Your task to perform on an android device: clear history in the chrome app Image 0: 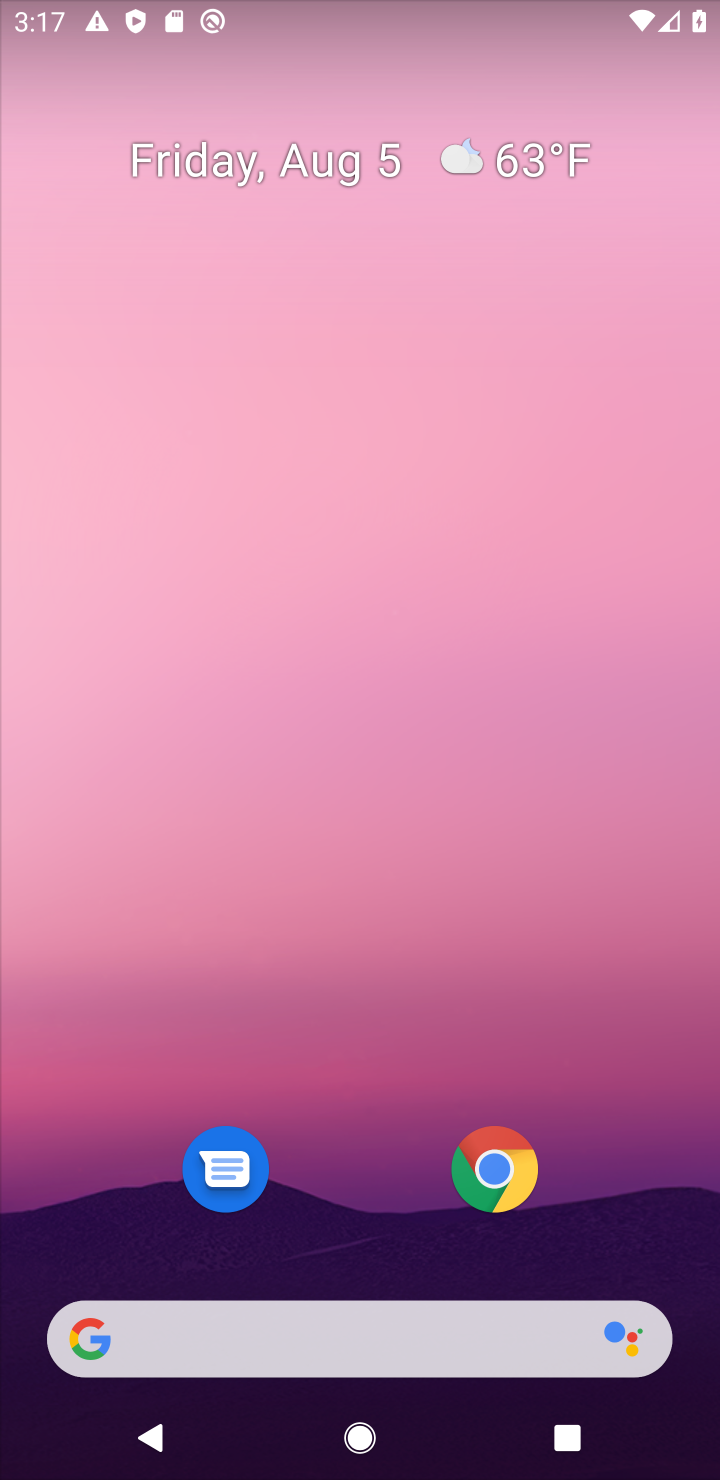
Step 0: click (485, 1166)
Your task to perform on an android device: clear history in the chrome app Image 1: 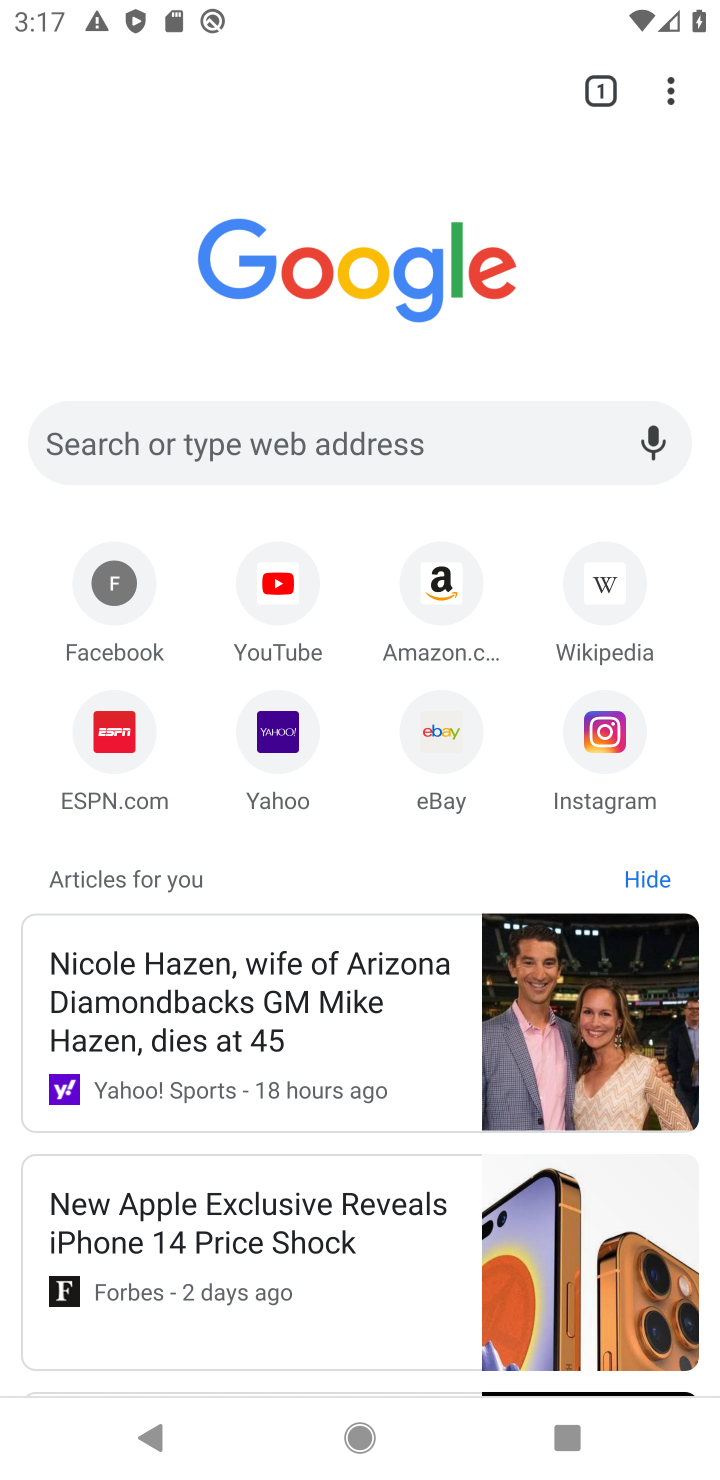
Step 1: click (670, 75)
Your task to perform on an android device: clear history in the chrome app Image 2: 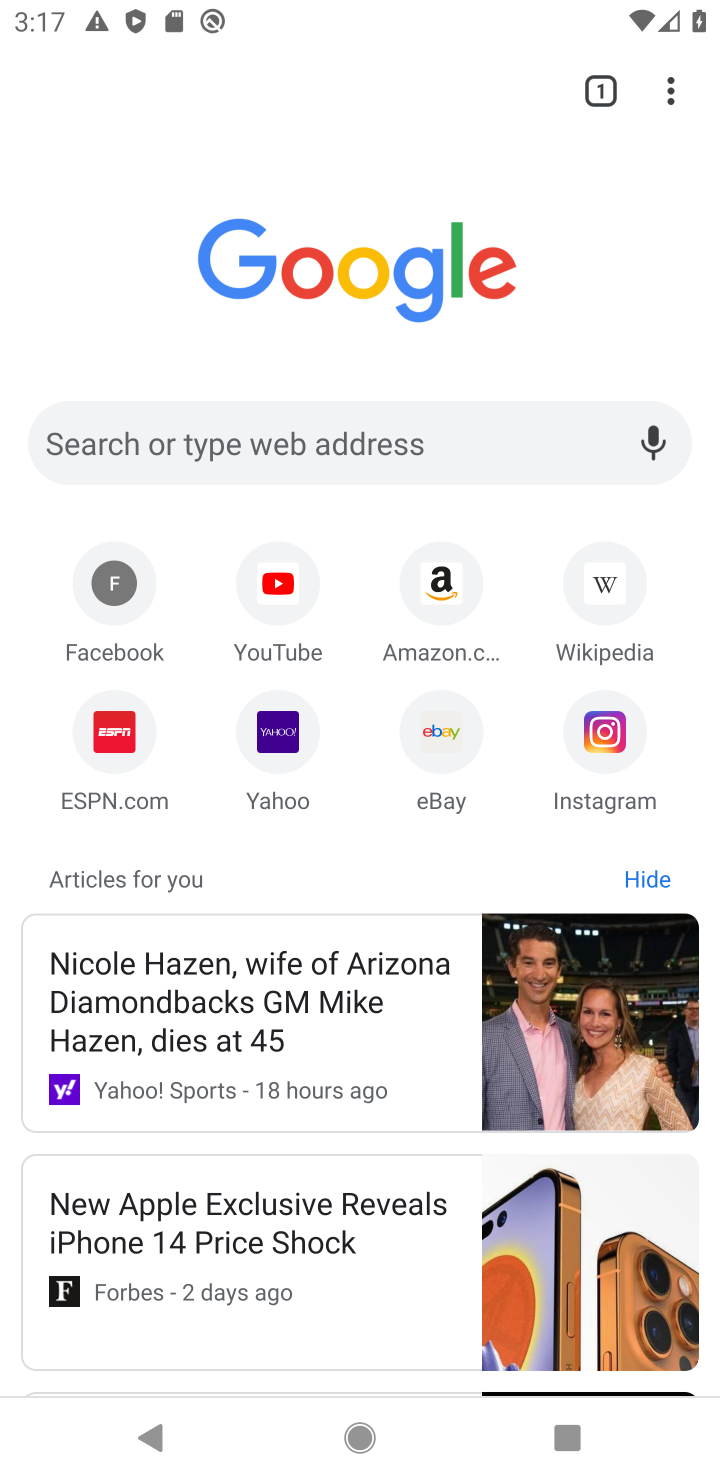
Step 2: click (664, 98)
Your task to perform on an android device: clear history in the chrome app Image 3: 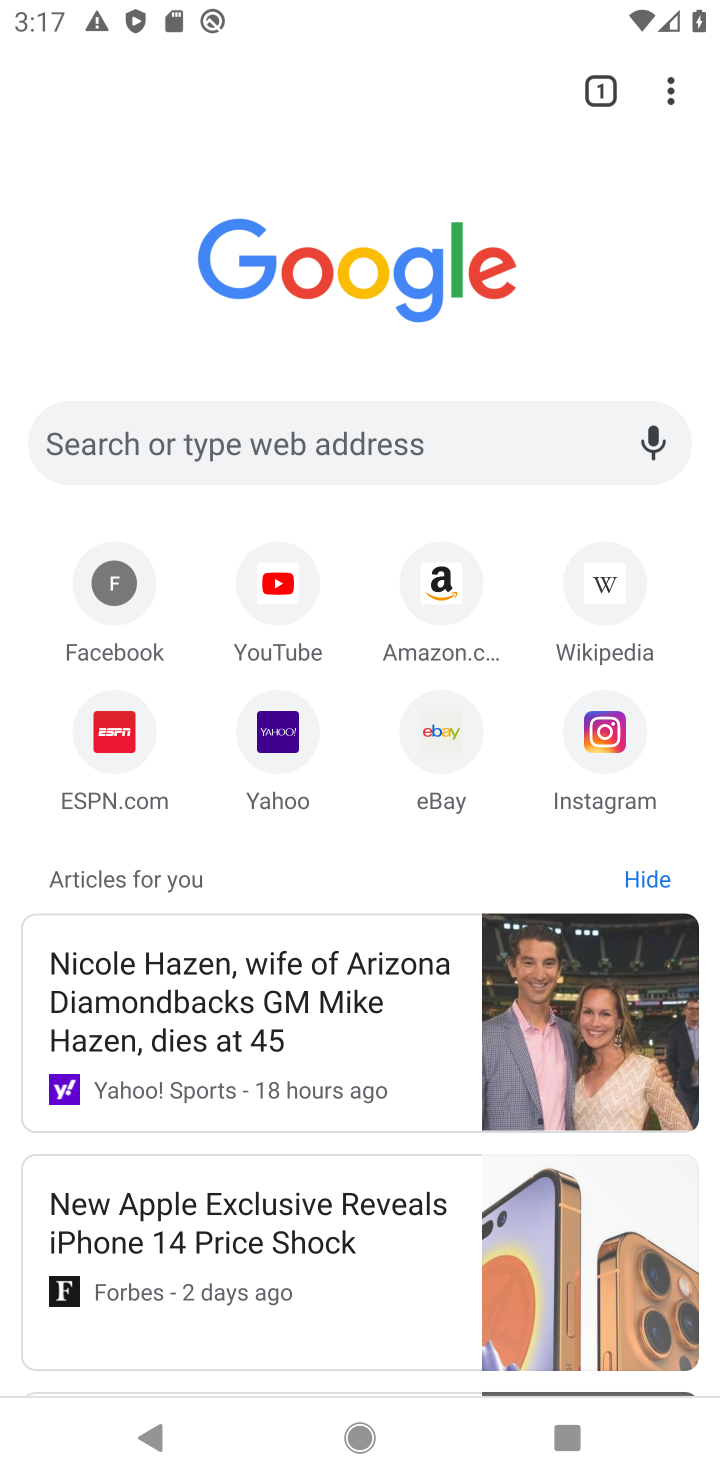
Step 3: click (664, 98)
Your task to perform on an android device: clear history in the chrome app Image 4: 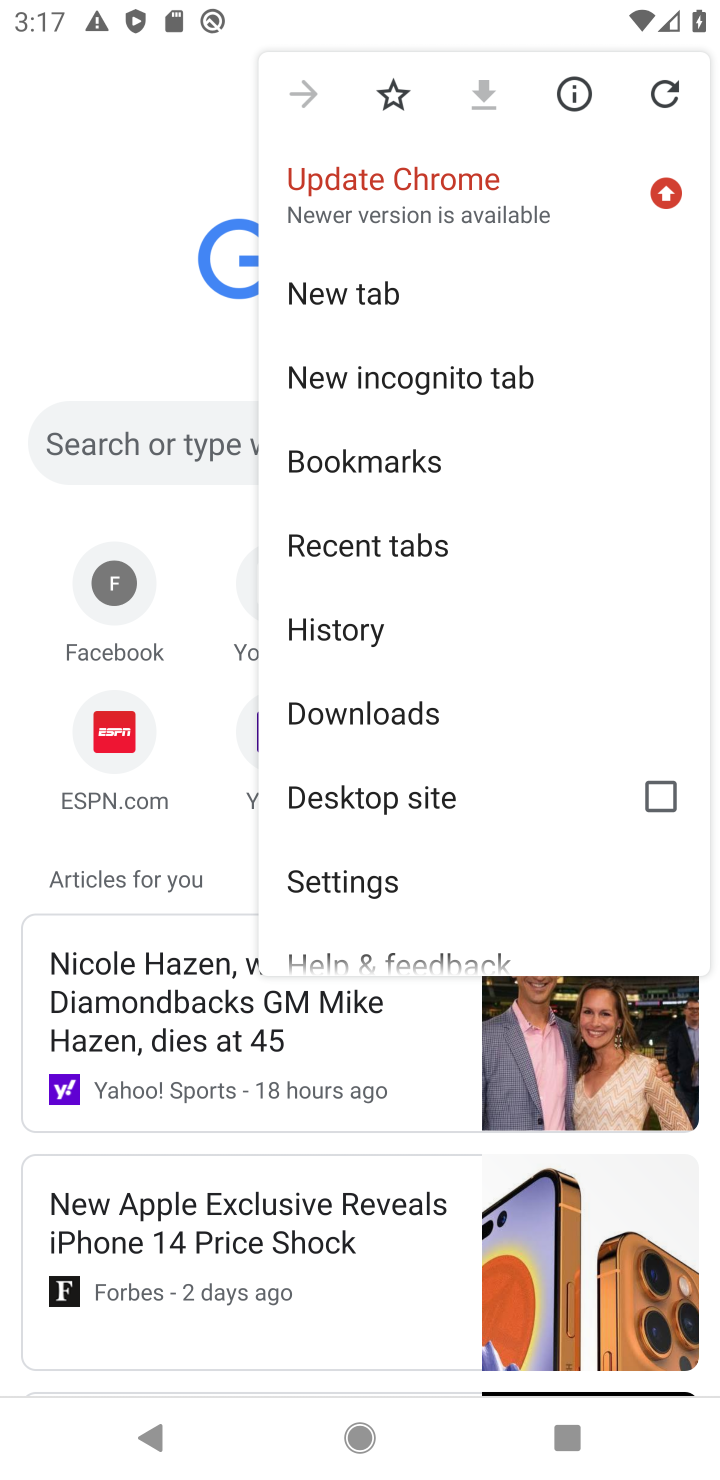
Step 4: click (307, 621)
Your task to perform on an android device: clear history in the chrome app Image 5: 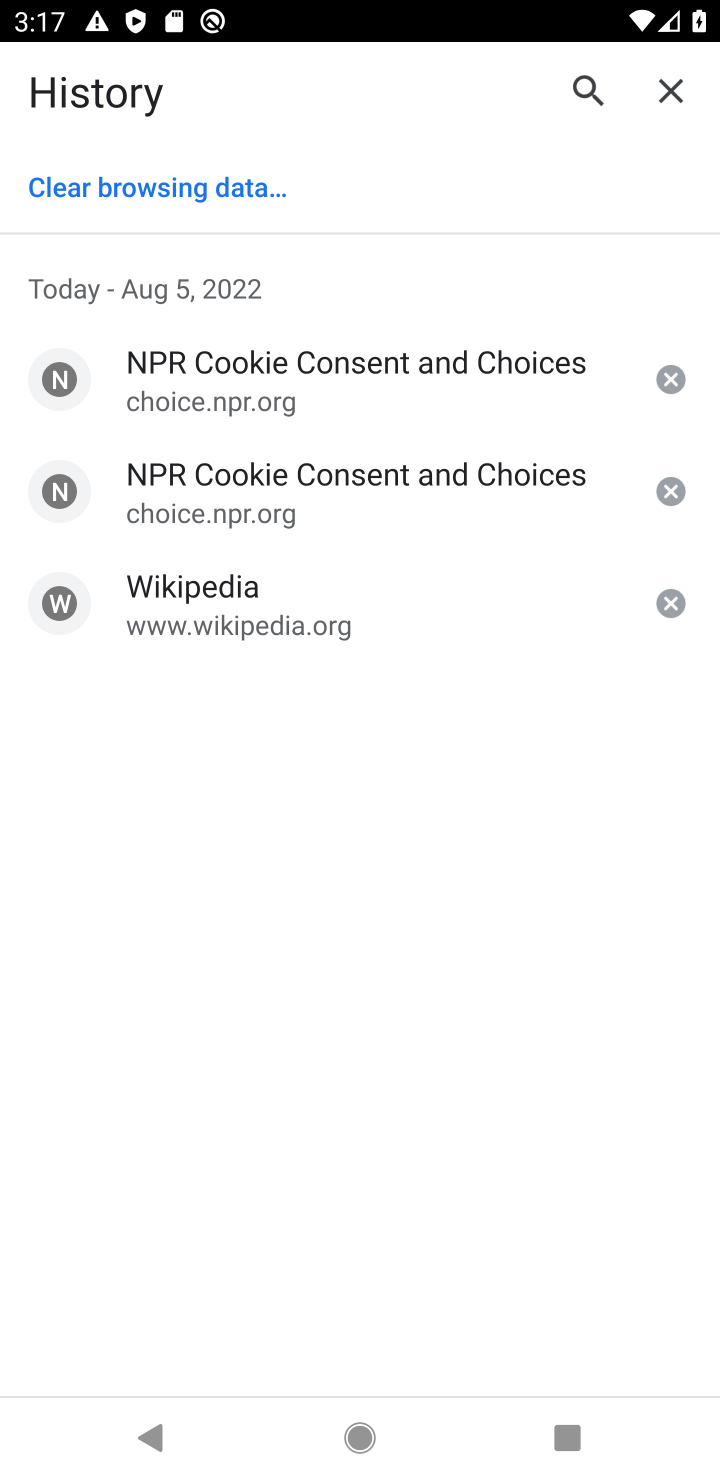
Step 5: click (238, 182)
Your task to perform on an android device: clear history in the chrome app Image 6: 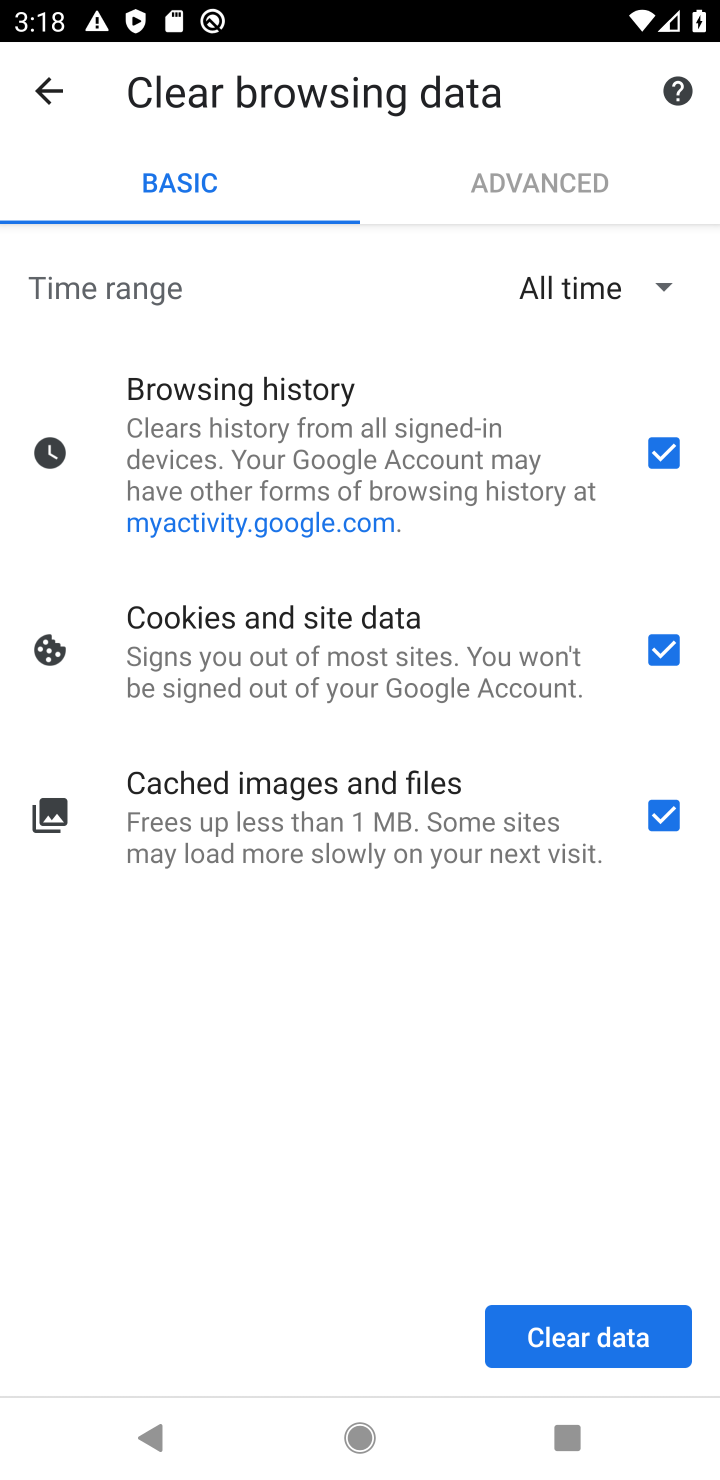
Step 6: click (570, 1331)
Your task to perform on an android device: clear history in the chrome app Image 7: 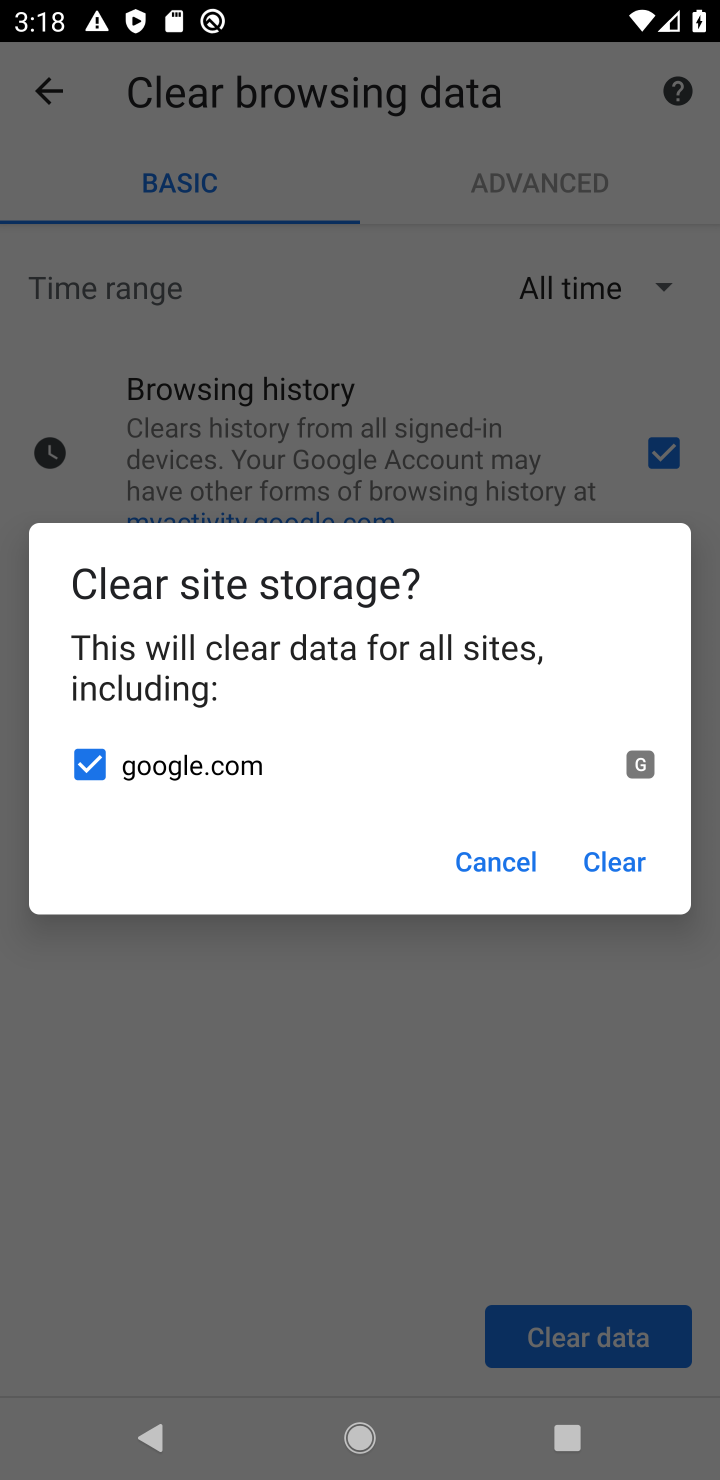
Step 7: click (631, 850)
Your task to perform on an android device: clear history in the chrome app Image 8: 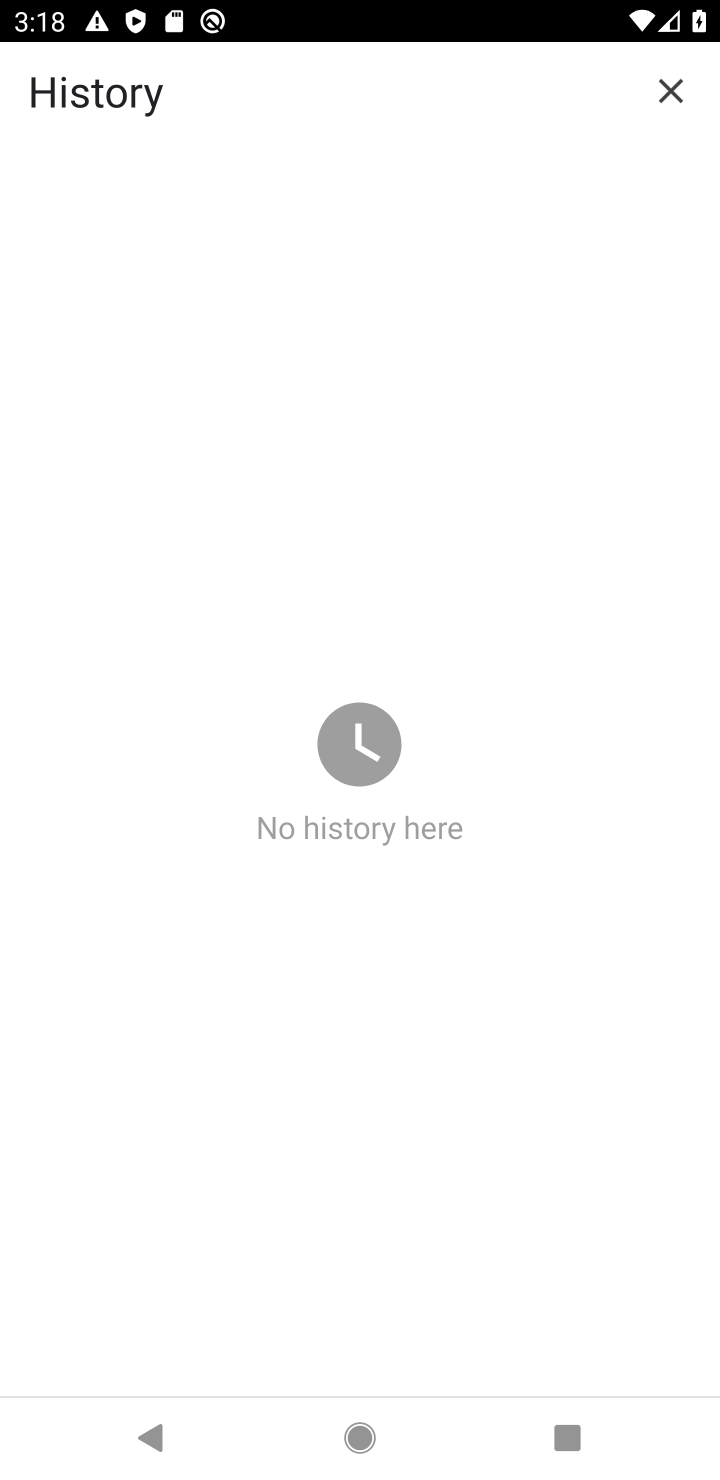
Step 8: task complete